Your task to perform on an android device: delete the emails in spam in the gmail app Image 0: 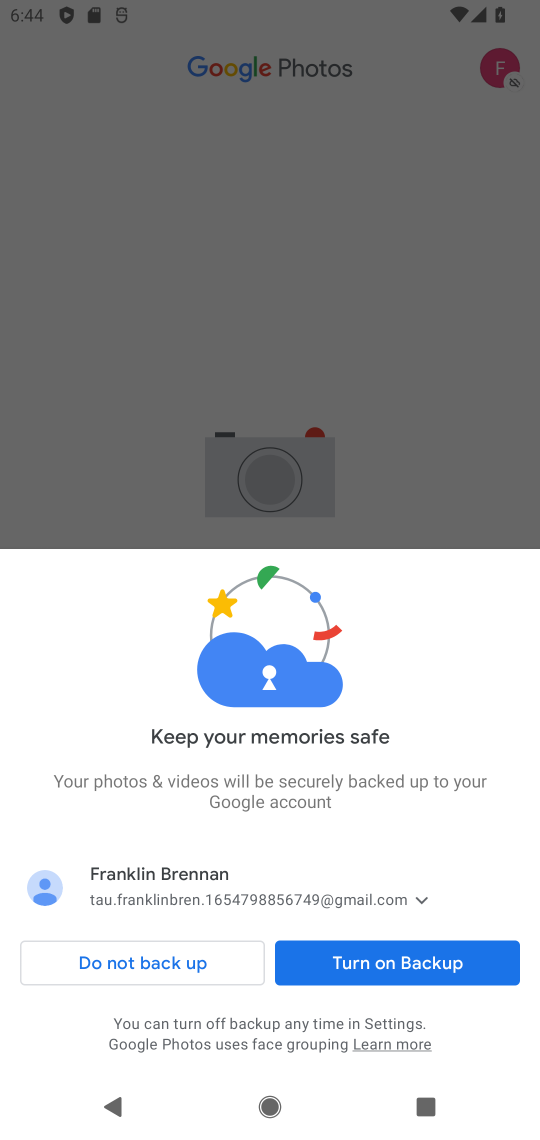
Step 0: press home button
Your task to perform on an android device: delete the emails in spam in the gmail app Image 1: 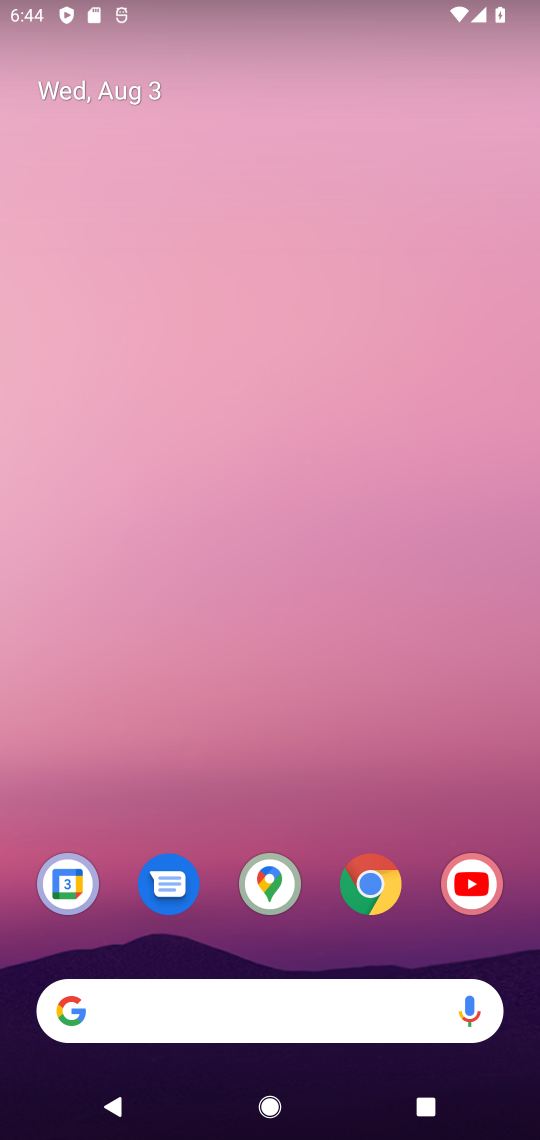
Step 1: task complete